Your task to perform on an android device: set the timer Image 0: 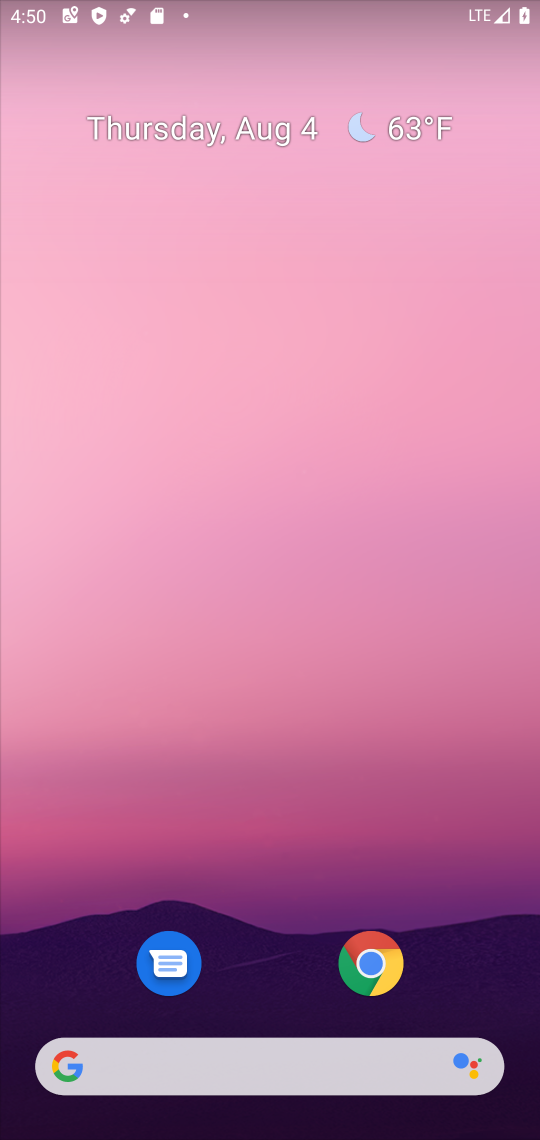
Step 0: drag from (262, 899) to (262, 176)
Your task to perform on an android device: set the timer Image 1: 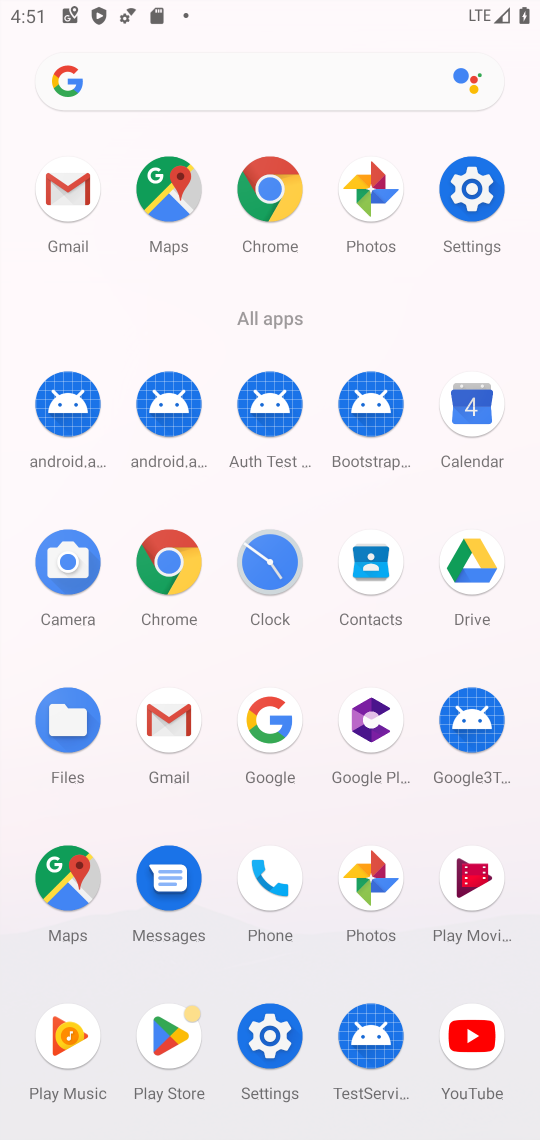
Step 1: click (273, 563)
Your task to perform on an android device: set the timer Image 2: 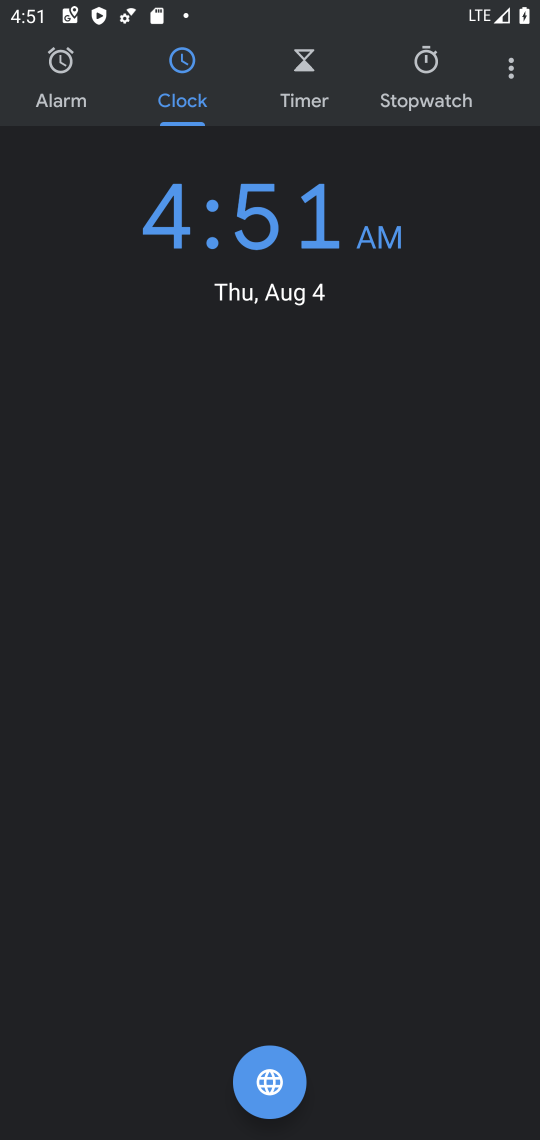
Step 2: click (301, 61)
Your task to perform on an android device: set the timer Image 3: 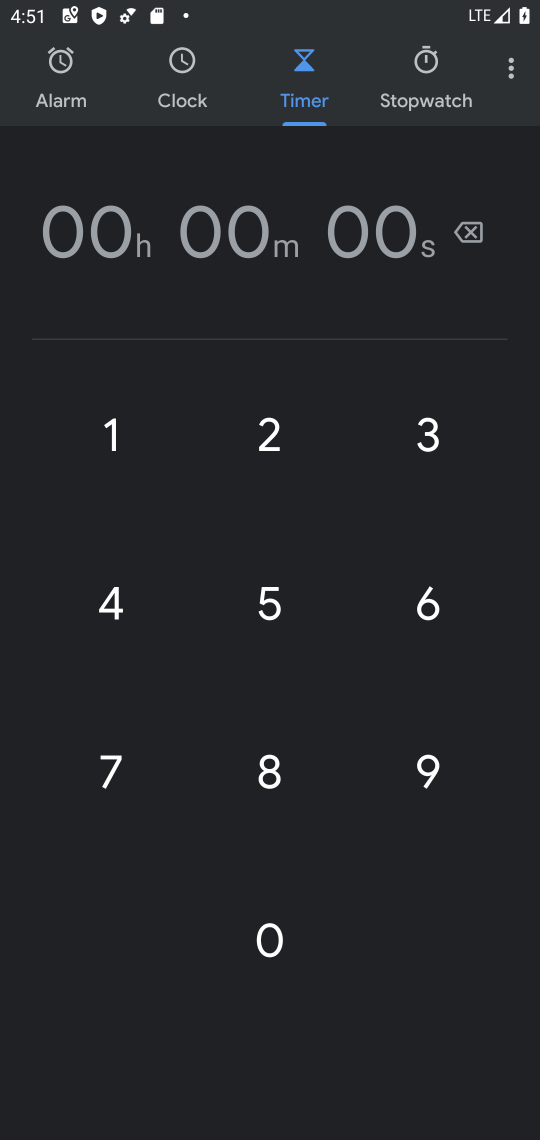
Step 3: click (115, 443)
Your task to perform on an android device: set the timer Image 4: 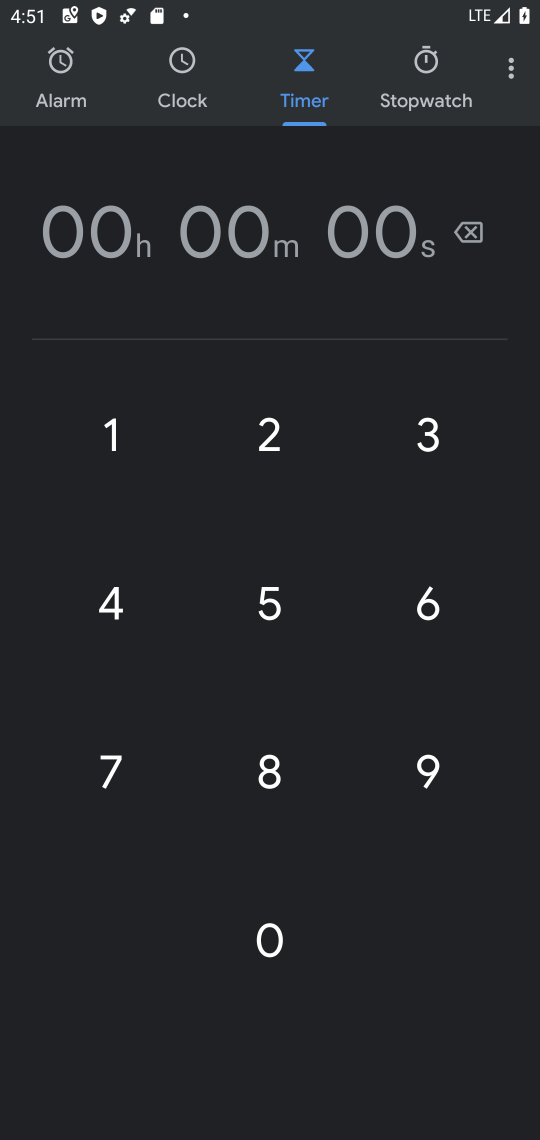
Step 4: click (115, 443)
Your task to perform on an android device: set the timer Image 5: 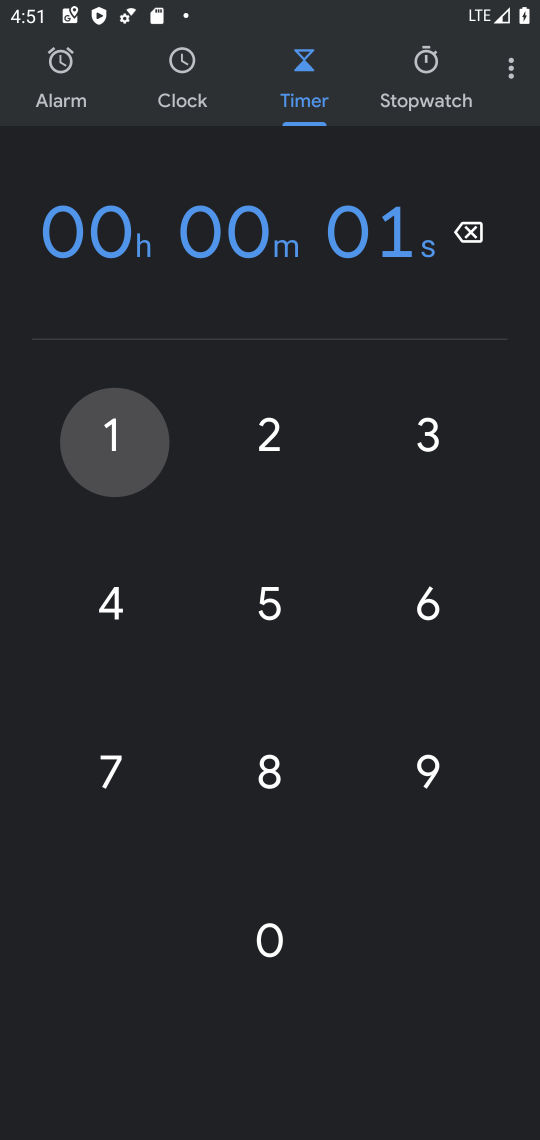
Step 5: click (115, 443)
Your task to perform on an android device: set the timer Image 6: 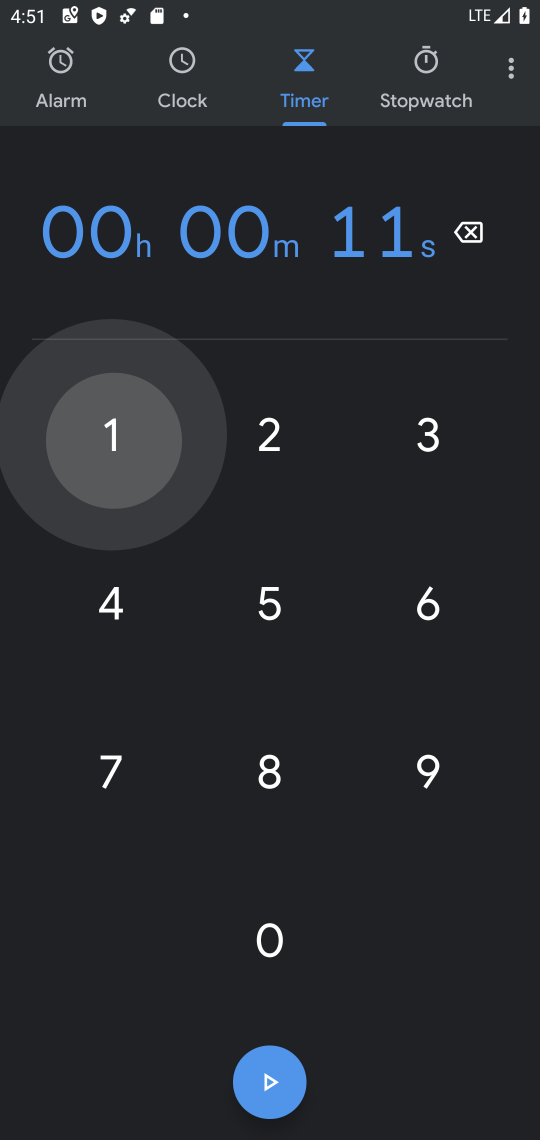
Step 6: click (115, 443)
Your task to perform on an android device: set the timer Image 7: 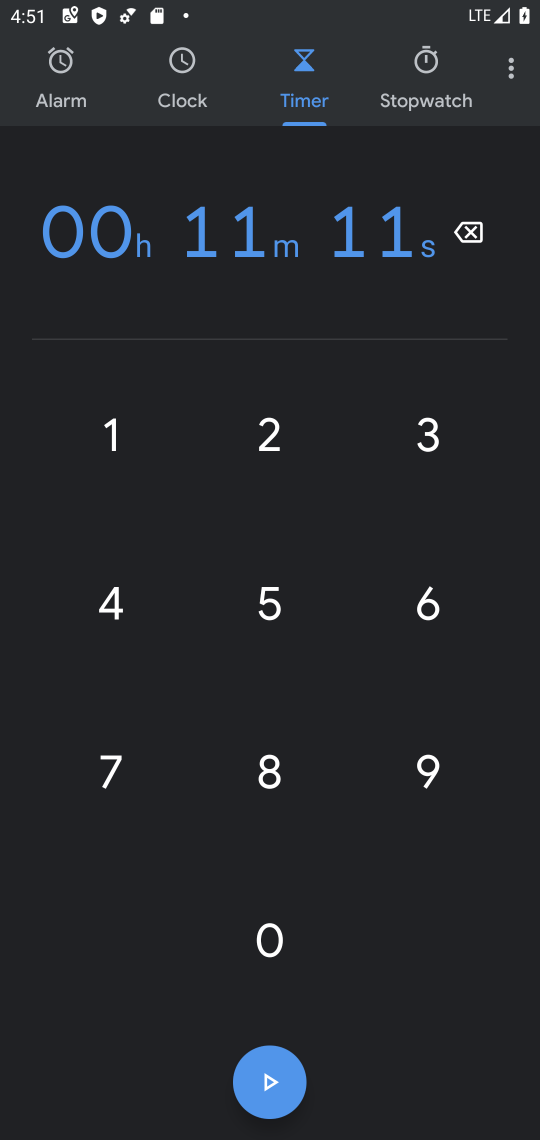
Step 7: click (115, 443)
Your task to perform on an android device: set the timer Image 8: 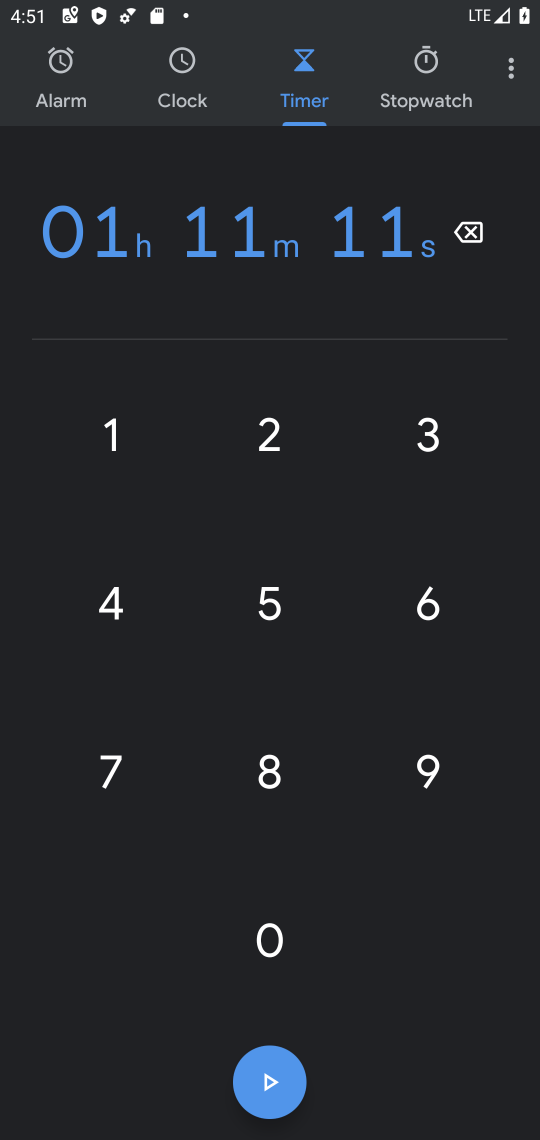
Step 8: task complete